Your task to perform on an android device: open a bookmark in the chrome app Image 0: 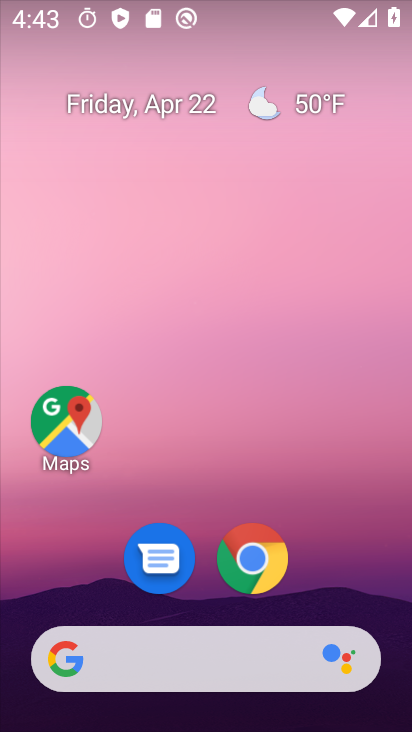
Step 0: click (271, 575)
Your task to perform on an android device: open a bookmark in the chrome app Image 1: 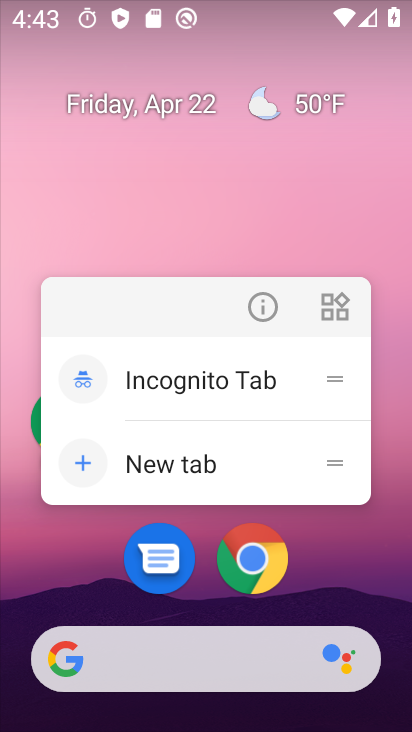
Step 1: click (274, 554)
Your task to perform on an android device: open a bookmark in the chrome app Image 2: 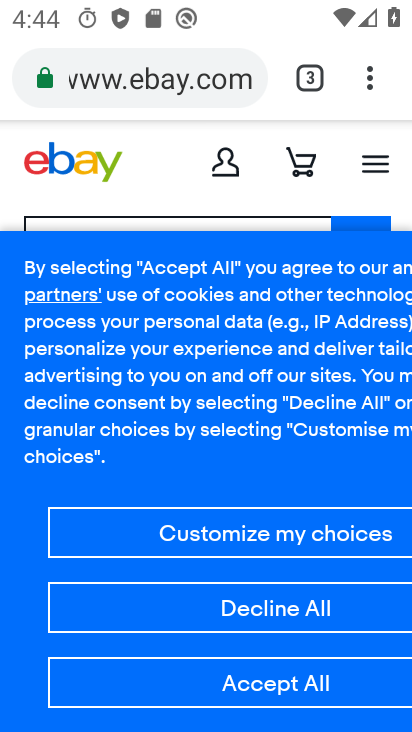
Step 2: click (378, 80)
Your task to perform on an android device: open a bookmark in the chrome app Image 3: 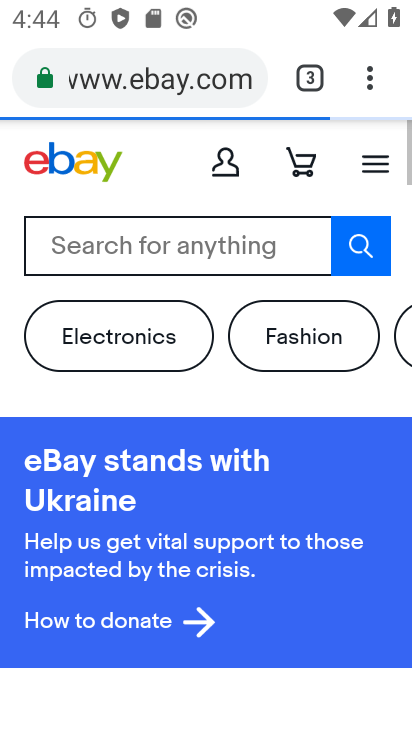
Step 3: click (367, 74)
Your task to perform on an android device: open a bookmark in the chrome app Image 4: 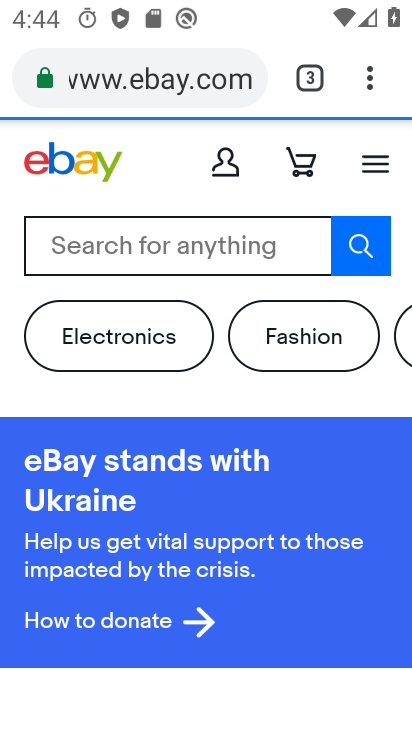
Step 4: click (374, 73)
Your task to perform on an android device: open a bookmark in the chrome app Image 5: 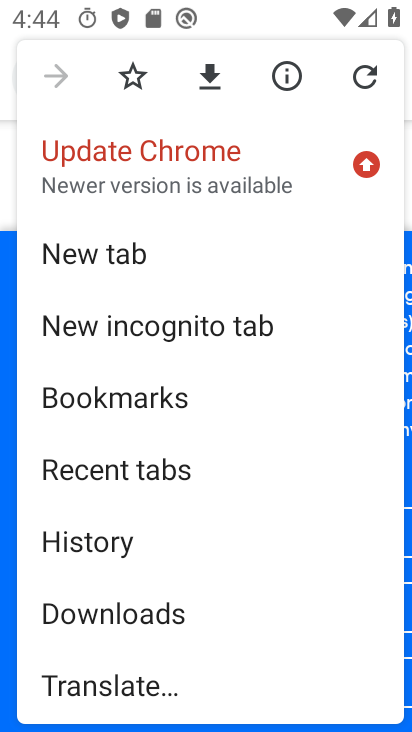
Step 5: click (129, 403)
Your task to perform on an android device: open a bookmark in the chrome app Image 6: 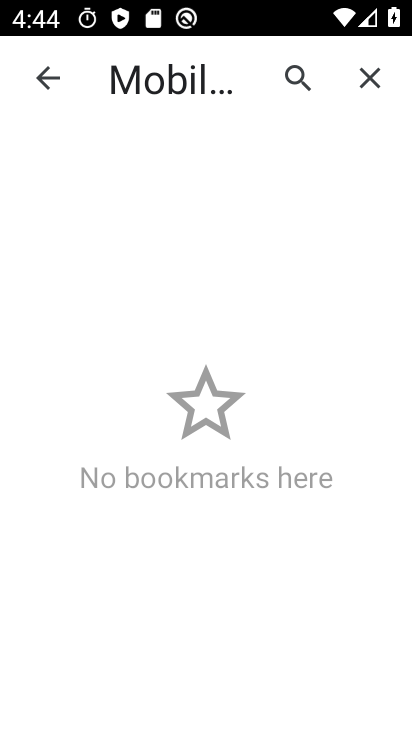
Step 6: task complete